Your task to perform on an android device: Go to Android settings Image 0: 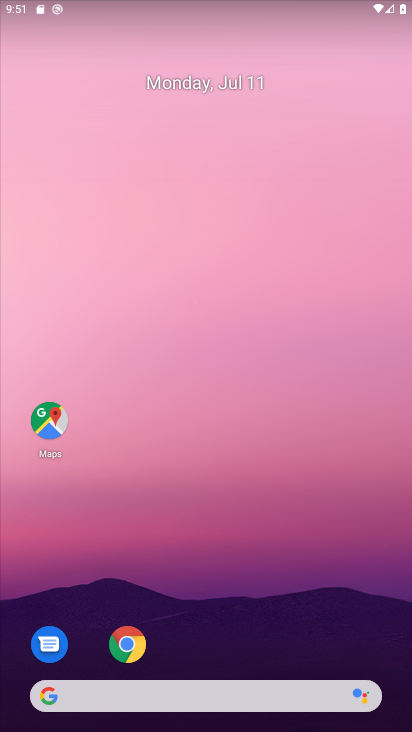
Step 0: drag from (285, 509) to (349, 57)
Your task to perform on an android device: Go to Android settings Image 1: 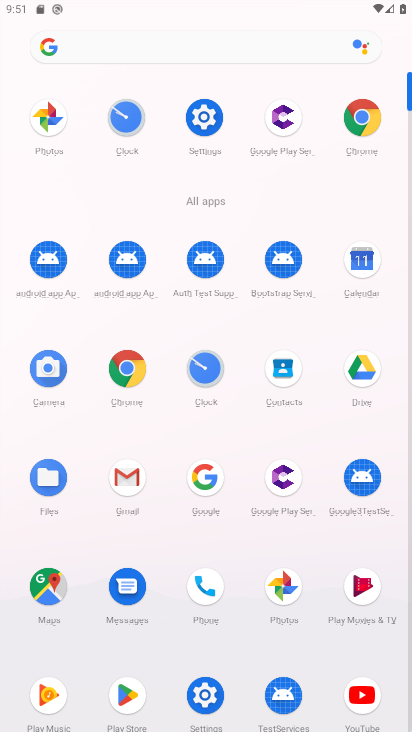
Step 1: click (197, 105)
Your task to perform on an android device: Go to Android settings Image 2: 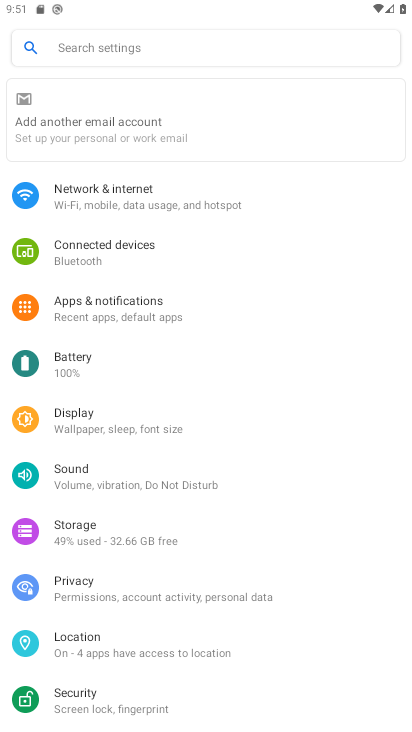
Step 2: drag from (186, 606) to (241, 210)
Your task to perform on an android device: Go to Android settings Image 3: 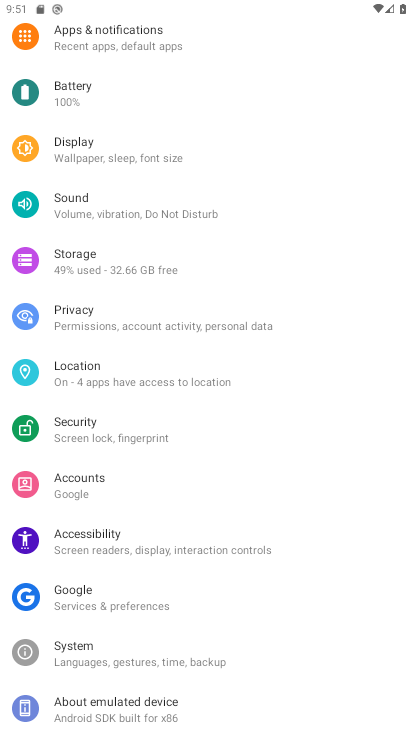
Step 3: click (62, 701)
Your task to perform on an android device: Go to Android settings Image 4: 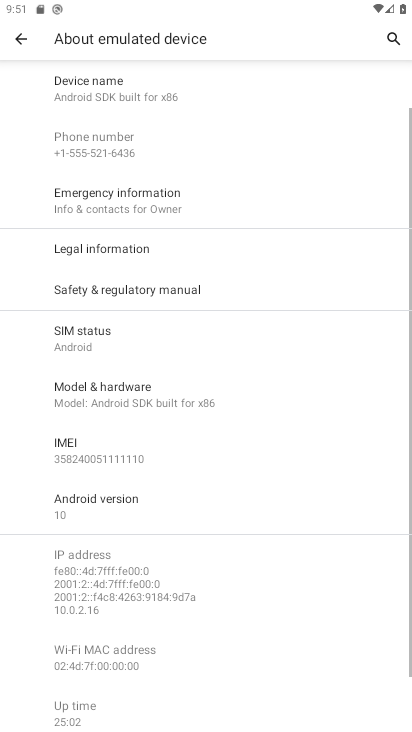
Step 4: click (82, 494)
Your task to perform on an android device: Go to Android settings Image 5: 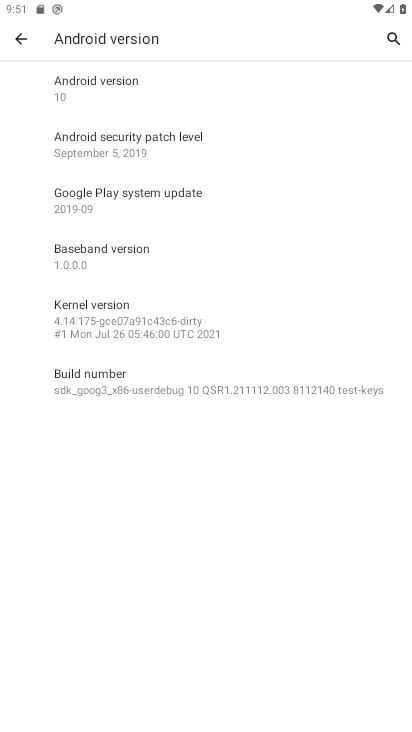
Step 5: click (102, 75)
Your task to perform on an android device: Go to Android settings Image 6: 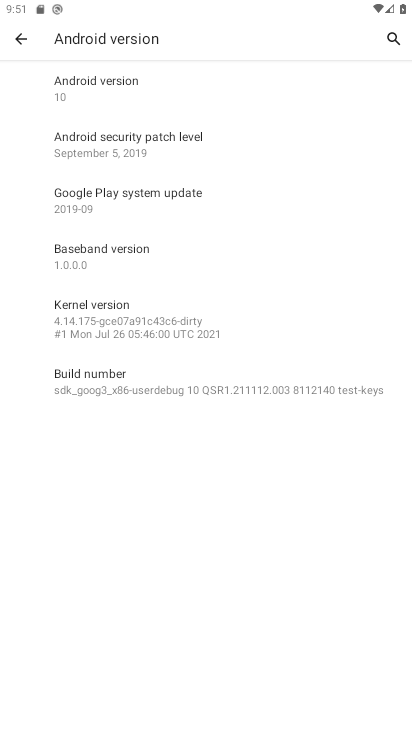
Step 6: task complete